Your task to perform on an android device: Go to Google maps Image 0: 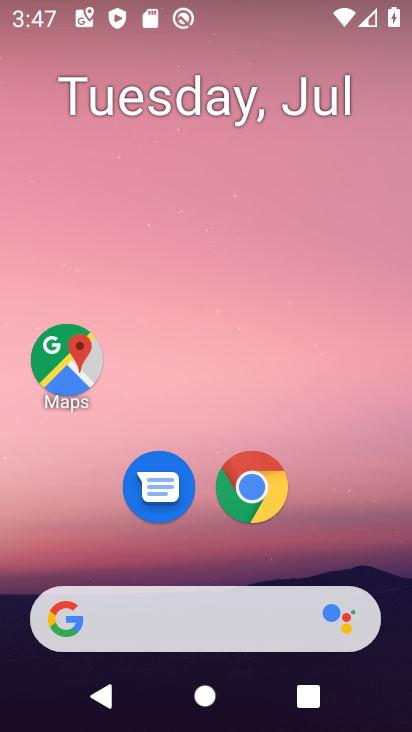
Step 0: click (69, 378)
Your task to perform on an android device: Go to Google maps Image 1: 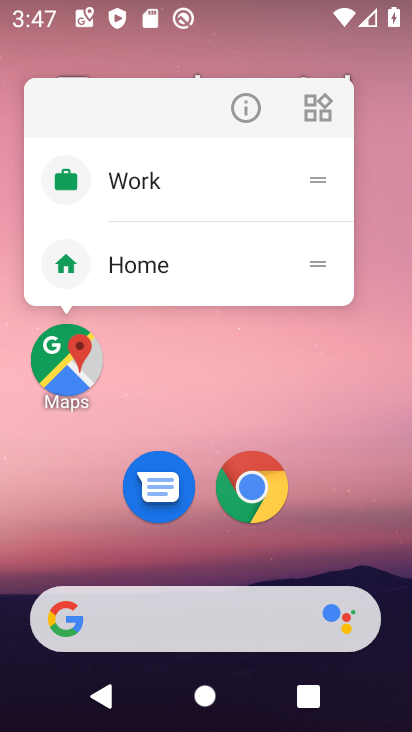
Step 1: click (101, 347)
Your task to perform on an android device: Go to Google maps Image 2: 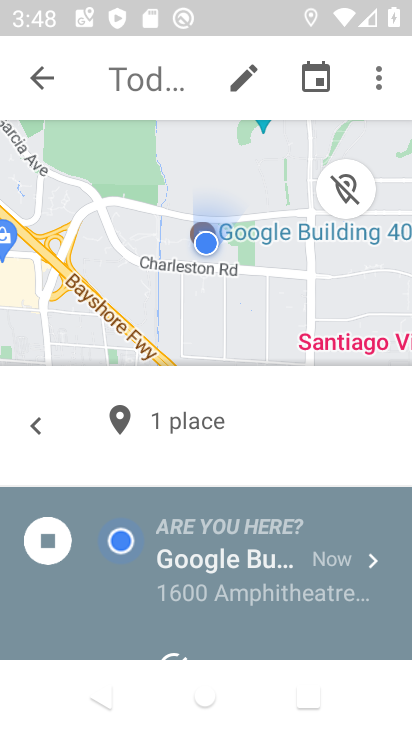
Step 2: task complete